Your task to perform on an android device: allow cookies in the chrome app Image 0: 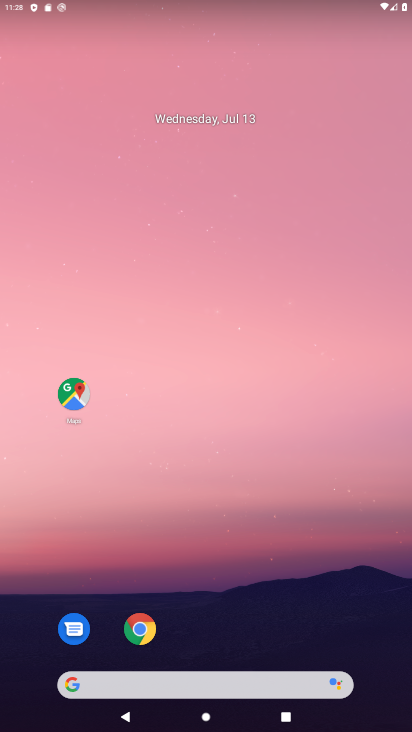
Step 0: drag from (258, 635) to (271, 97)
Your task to perform on an android device: allow cookies in the chrome app Image 1: 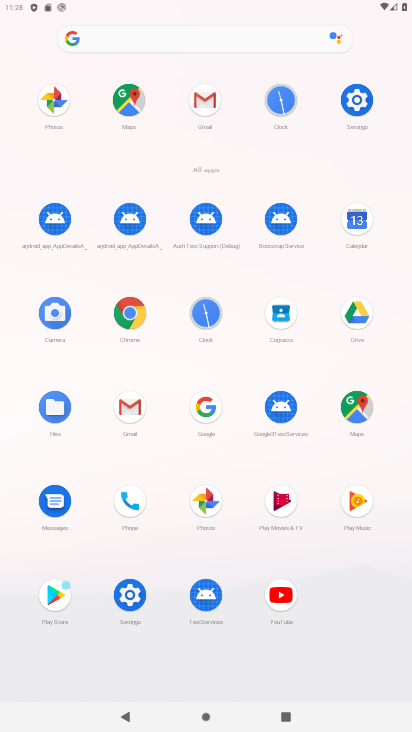
Step 1: click (124, 308)
Your task to perform on an android device: allow cookies in the chrome app Image 2: 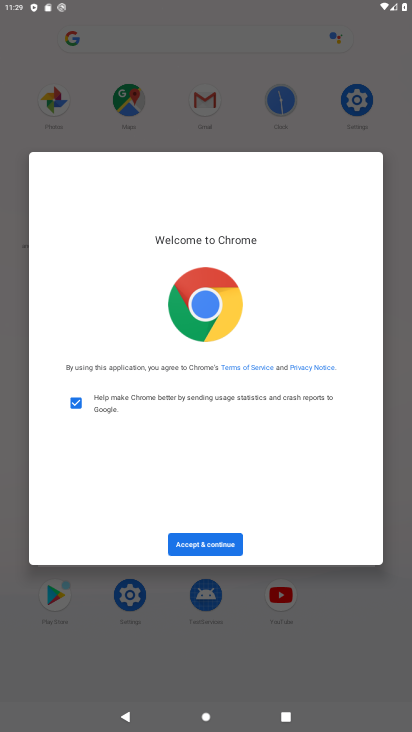
Step 2: click (226, 543)
Your task to perform on an android device: allow cookies in the chrome app Image 3: 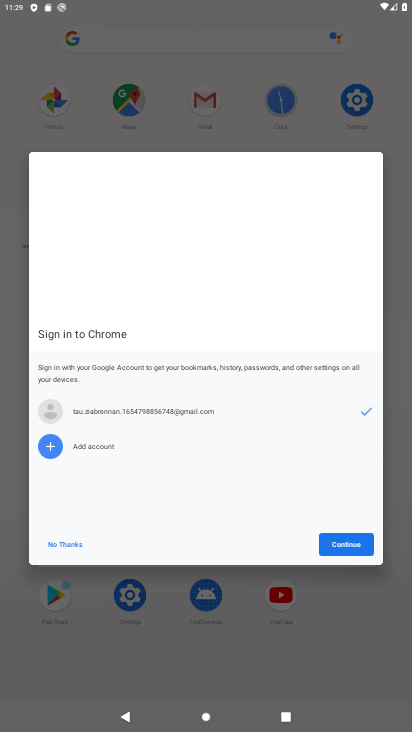
Step 3: click (333, 553)
Your task to perform on an android device: allow cookies in the chrome app Image 4: 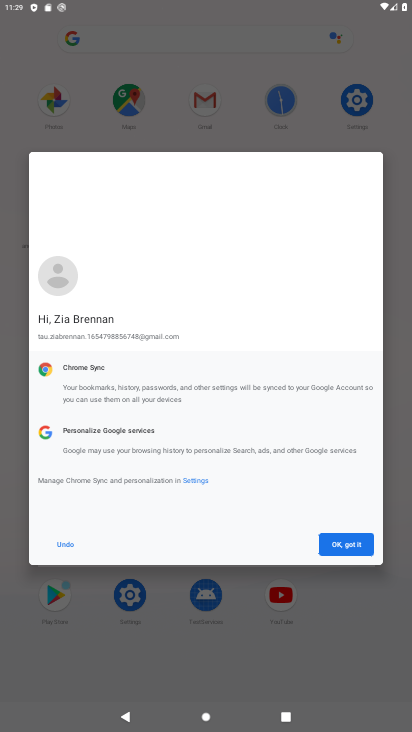
Step 4: click (333, 550)
Your task to perform on an android device: allow cookies in the chrome app Image 5: 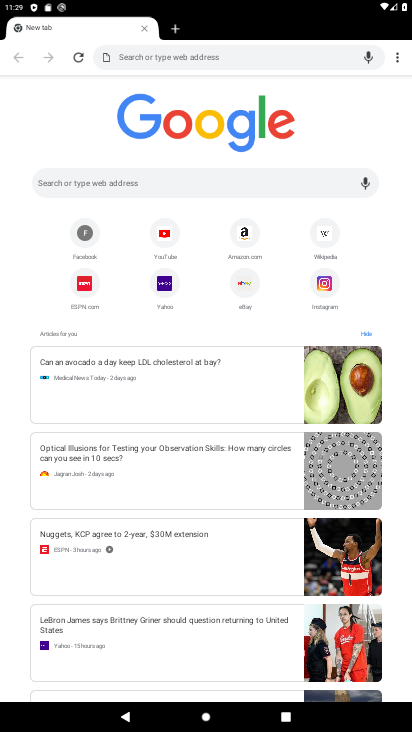
Step 5: click (395, 60)
Your task to perform on an android device: allow cookies in the chrome app Image 6: 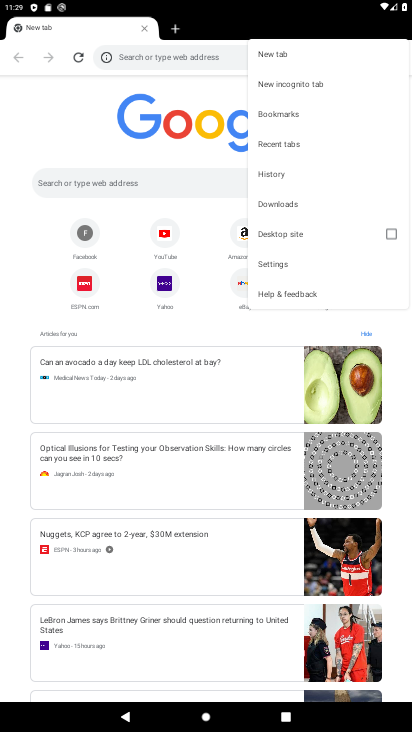
Step 6: click (296, 268)
Your task to perform on an android device: allow cookies in the chrome app Image 7: 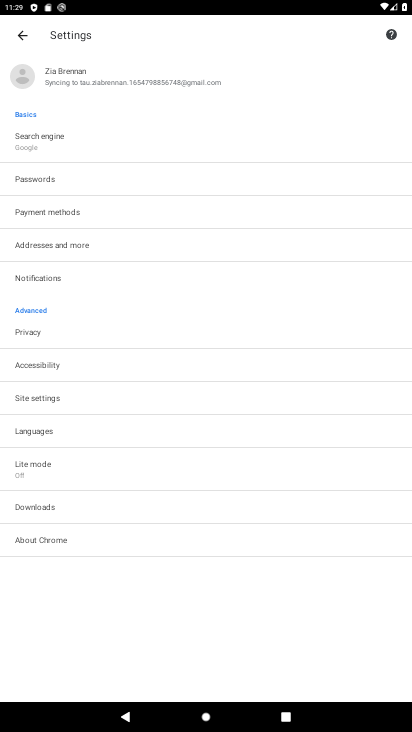
Step 7: click (95, 399)
Your task to perform on an android device: allow cookies in the chrome app Image 8: 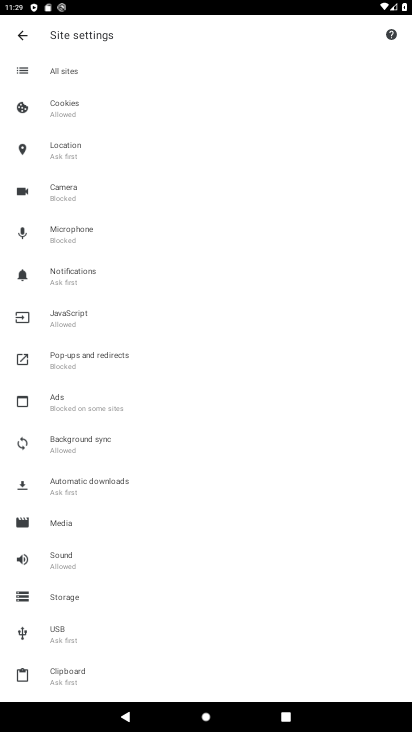
Step 8: click (135, 107)
Your task to perform on an android device: allow cookies in the chrome app Image 9: 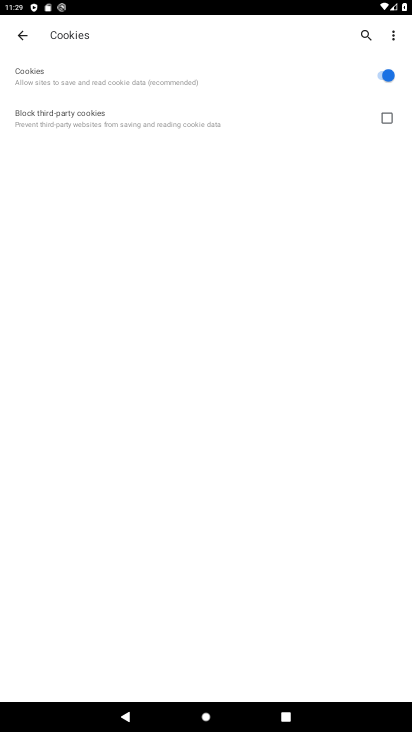
Step 9: task complete